Your task to perform on an android device: Open the map Image 0: 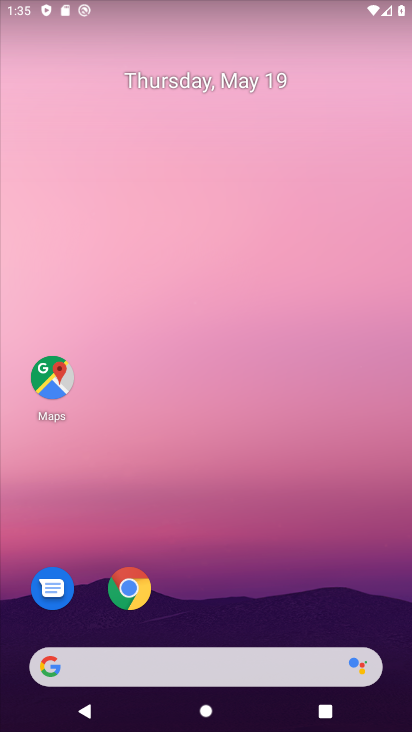
Step 0: click (62, 377)
Your task to perform on an android device: Open the map Image 1: 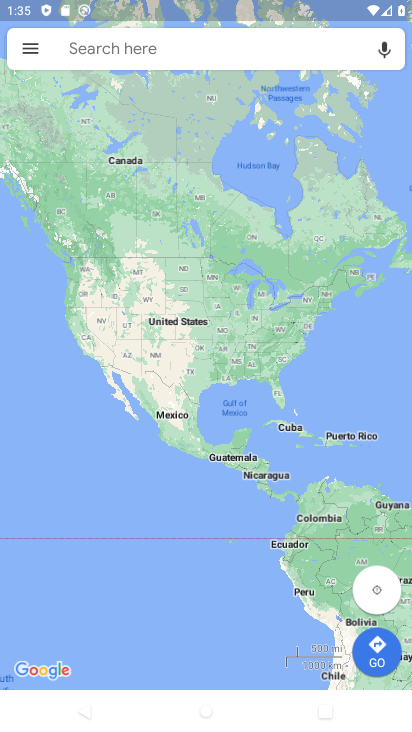
Step 1: task complete